Your task to perform on an android device: View the shopping cart on newegg. Search for "usb-c to usb-b" on newegg, select the first entry, and add it to the cart. Image 0: 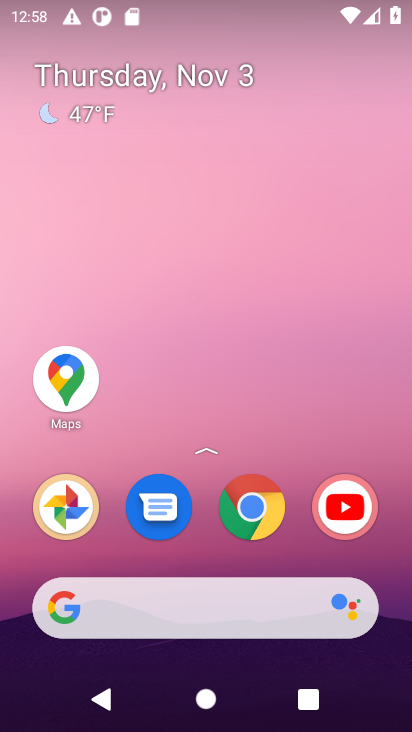
Step 0: click (197, 586)
Your task to perform on an android device: View the shopping cart on newegg. Search for "usb-c to usb-b" on newegg, select the first entry, and add it to the cart. Image 1: 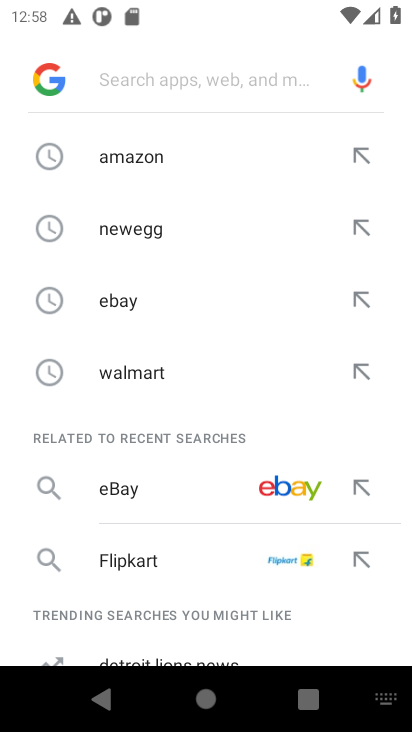
Step 1: click (174, 226)
Your task to perform on an android device: View the shopping cart on newegg. Search for "usb-c to usb-b" on newegg, select the first entry, and add it to the cart. Image 2: 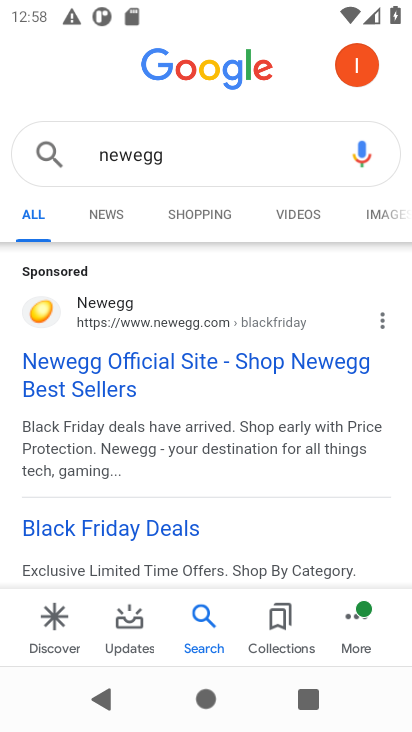
Step 2: click (46, 383)
Your task to perform on an android device: View the shopping cart on newegg. Search for "usb-c to usb-b" on newegg, select the first entry, and add it to the cart. Image 3: 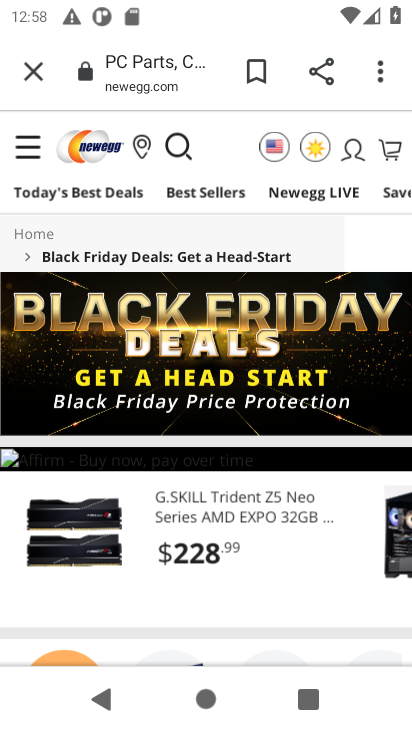
Step 3: click (196, 136)
Your task to perform on an android device: View the shopping cart on newegg. Search for "usb-c to usb-b" on newegg, select the first entry, and add it to the cart. Image 4: 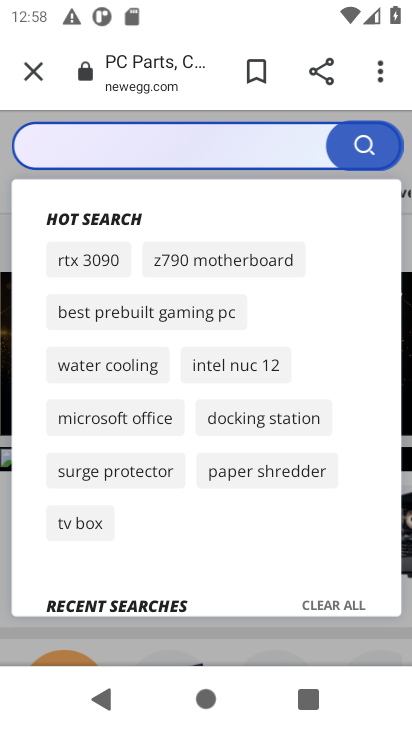
Step 4: type "usb-c to usb-b"
Your task to perform on an android device: View the shopping cart on newegg. Search for "usb-c to usb-b" on newegg, select the first entry, and add it to the cart. Image 5: 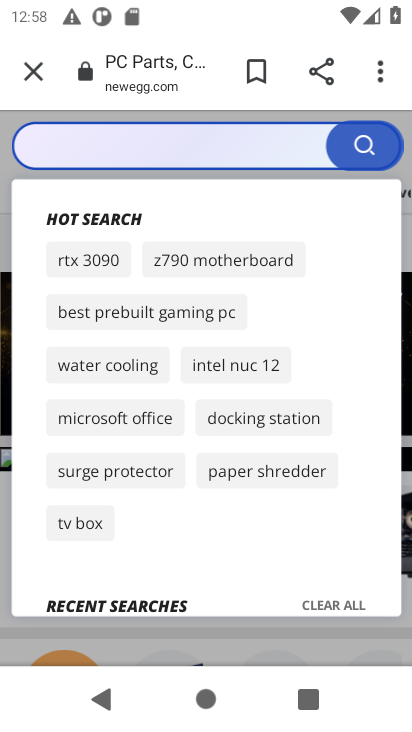
Step 5: click (221, 147)
Your task to perform on an android device: View the shopping cart on newegg. Search for "usb-c to usb-b" on newegg, select the first entry, and add it to the cart. Image 6: 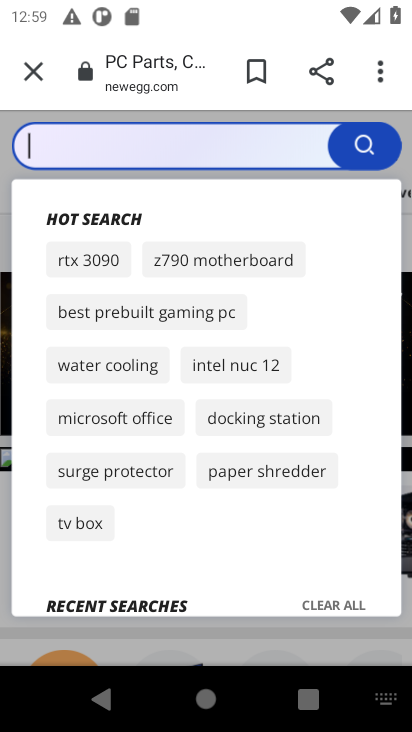
Step 6: type "usb-c to usb-b"
Your task to perform on an android device: View the shopping cart on newegg. Search for "usb-c to usb-b" on newegg, select the first entry, and add it to the cart. Image 7: 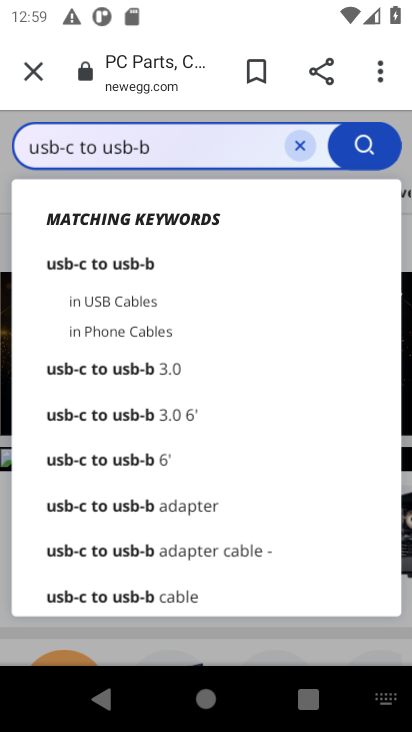
Step 7: click (344, 166)
Your task to perform on an android device: View the shopping cart on newegg. Search for "usb-c to usb-b" on newegg, select the first entry, and add it to the cart. Image 8: 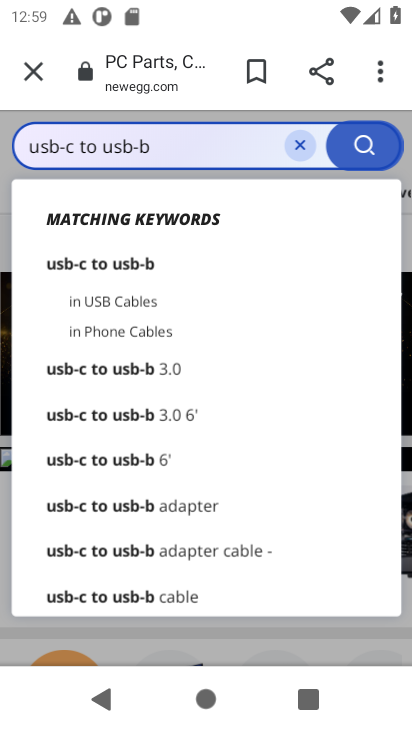
Step 8: click (127, 263)
Your task to perform on an android device: View the shopping cart on newegg. Search for "usb-c to usb-b" on newegg, select the first entry, and add it to the cart. Image 9: 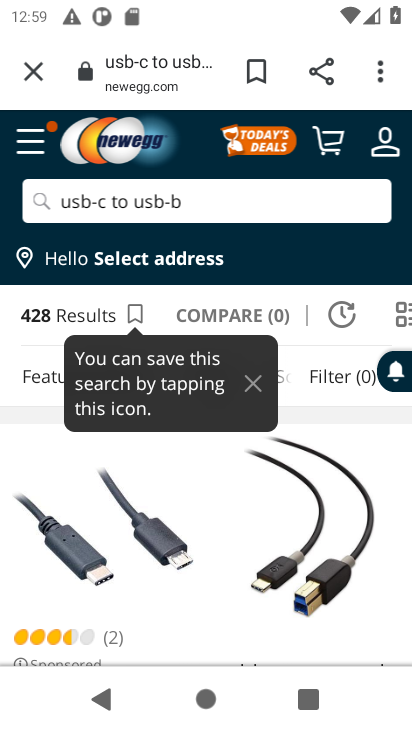
Step 9: click (345, 589)
Your task to perform on an android device: View the shopping cart on newegg. Search for "usb-c to usb-b" on newegg, select the first entry, and add it to the cart. Image 10: 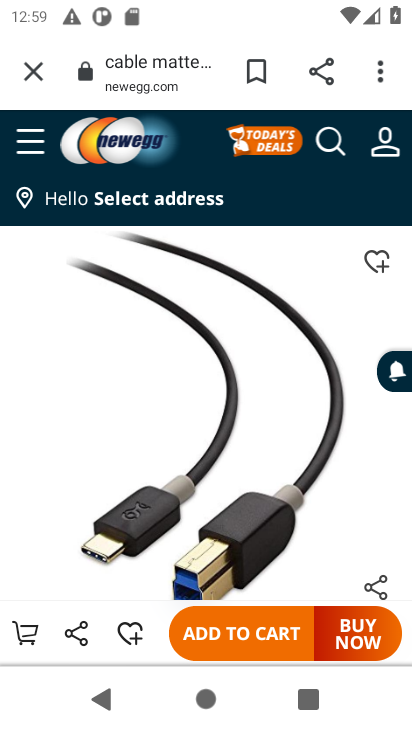
Step 10: click (225, 652)
Your task to perform on an android device: View the shopping cart on newegg. Search for "usb-c to usb-b" on newegg, select the first entry, and add it to the cart. Image 11: 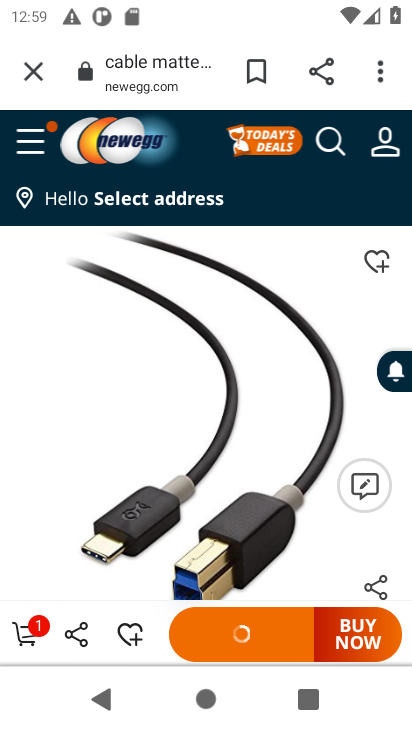
Step 11: task complete